Your task to perform on an android device: Open Yahoo.com Image 0: 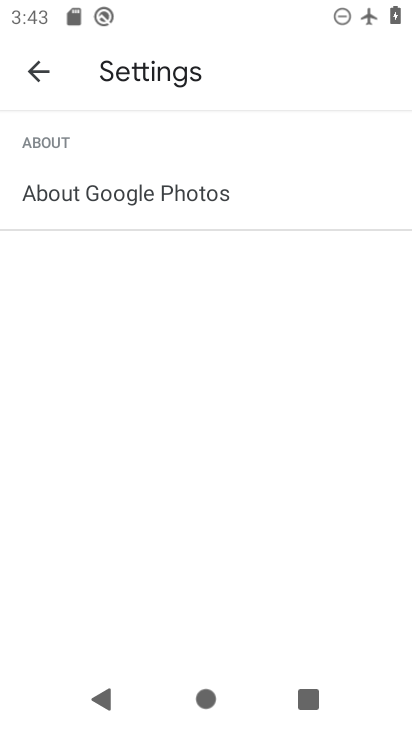
Step 0: press home button
Your task to perform on an android device: Open Yahoo.com Image 1: 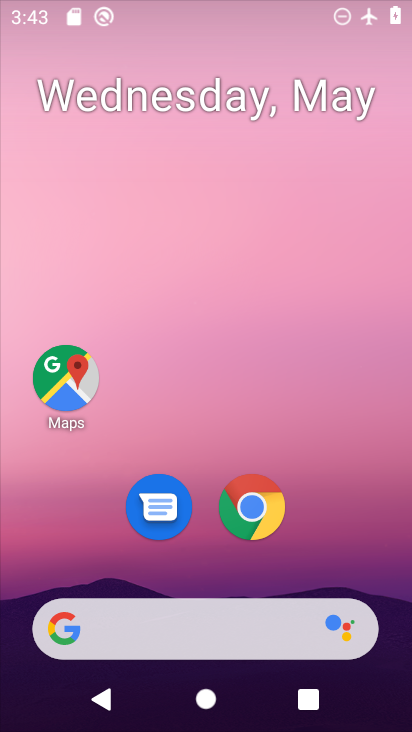
Step 1: drag from (217, 633) to (217, 198)
Your task to perform on an android device: Open Yahoo.com Image 2: 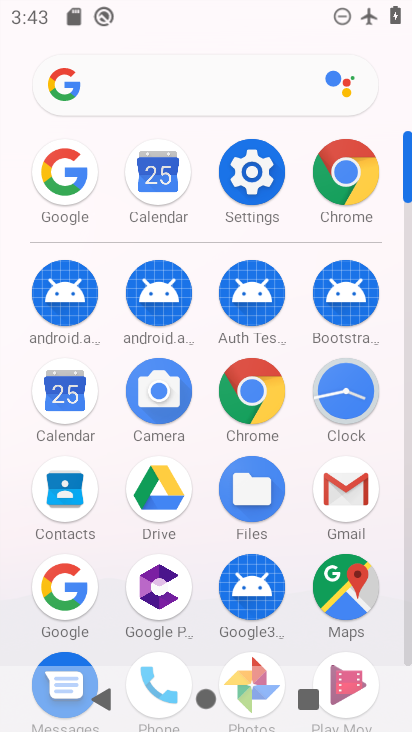
Step 2: click (336, 207)
Your task to perform on an android device: Open Yahoo.com Image 3: 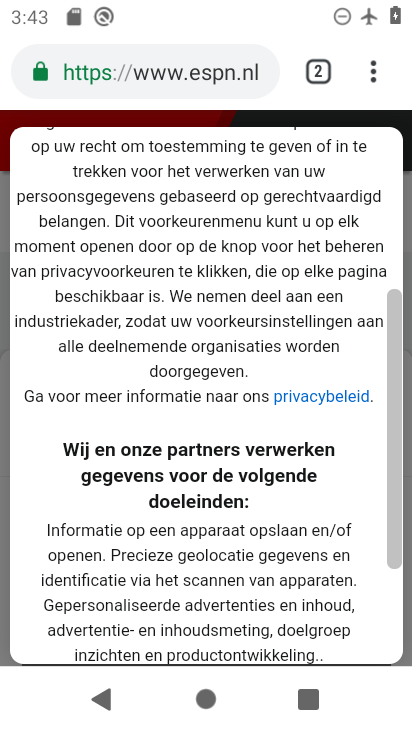
Step 3: click (220, 78)
Your task to perform on an android device: Open Yahoo.com Image 4: 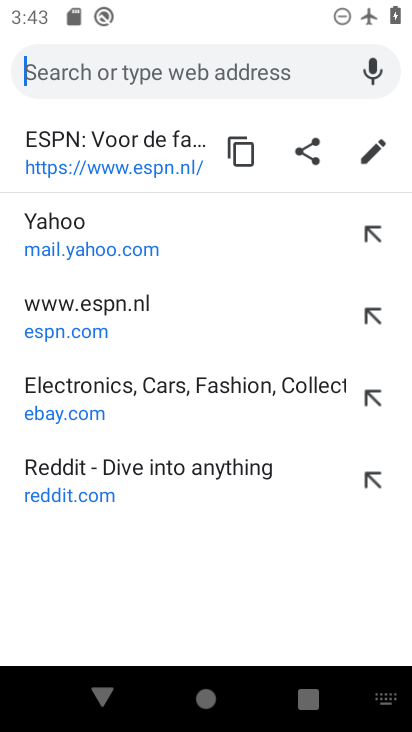
Step 4: click (152, 238)
Your task to perform on an android device: Open Yahoo.com Image 5: 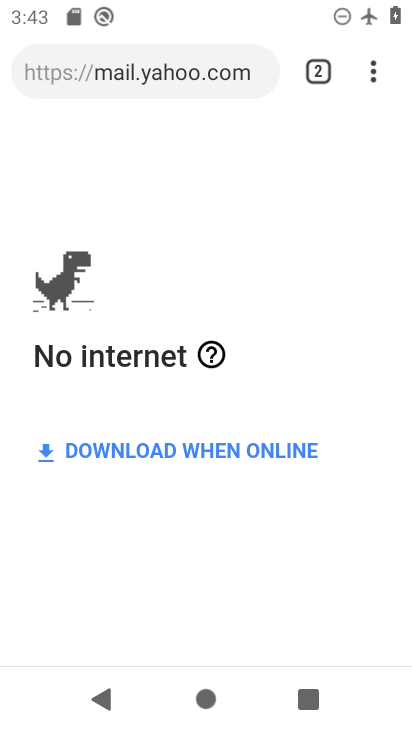
Step 5: task complete